Your task to perform on an android device: Go to Amazon Image 0: 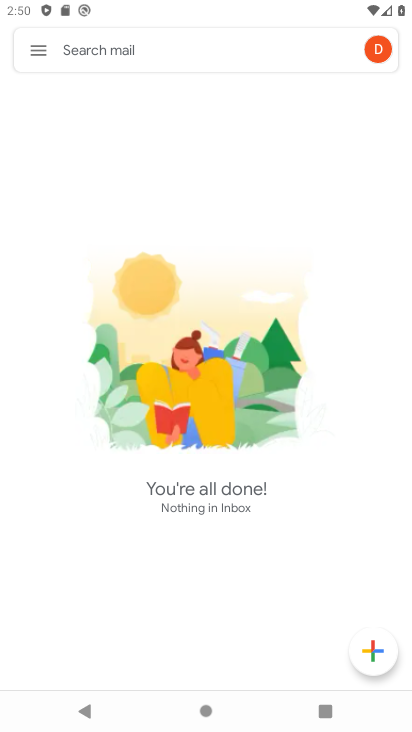
Step 0: press home button
Your task to perform on an android device: Go to Amazon Image 1: 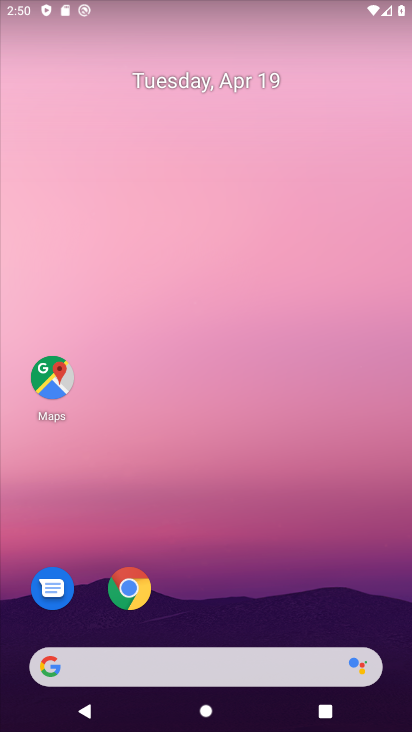
Step 1: drag from (248, 665) to (213, 171)
Your task to perform on an android device: Go to Amazon Image 2: 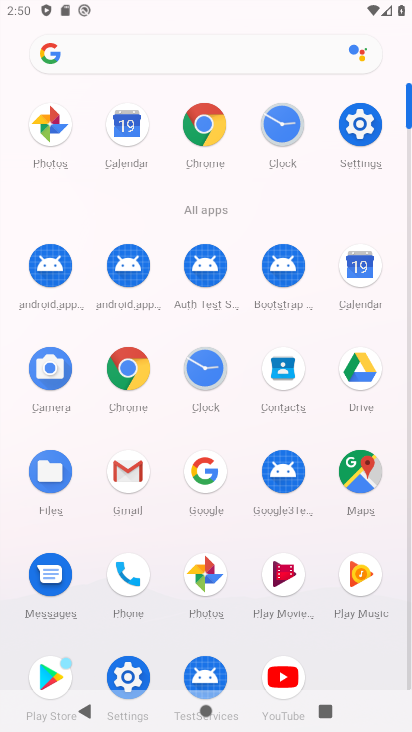
Step 2: click (216, 143)
Your task to perform on an android device: Go to Amazon Image 3: 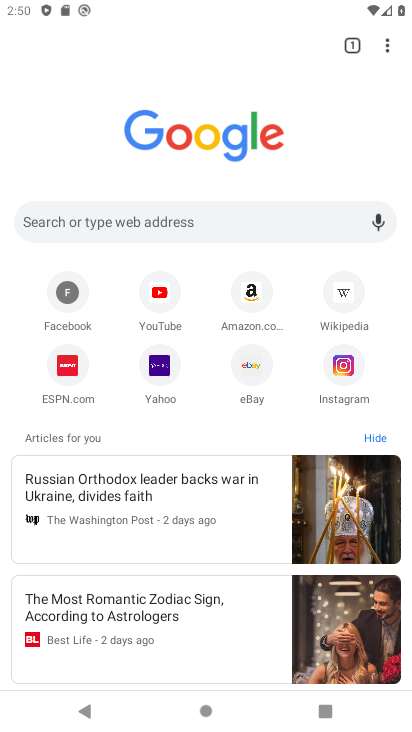
Step 3: click (242, 283)
Your task to perform on an android device: Go to Amazon Image 4: 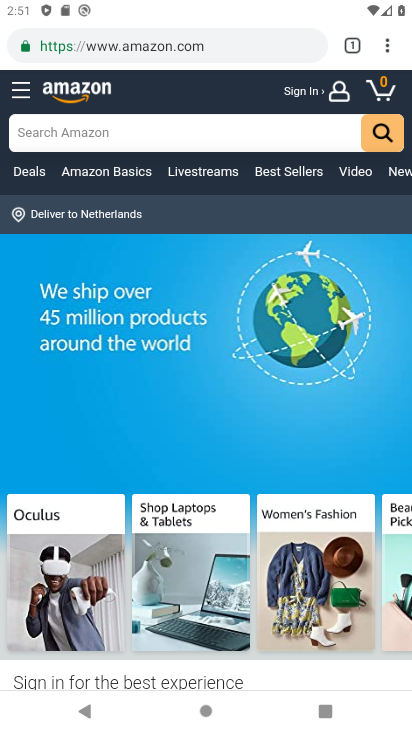
Step 4: task complete